Your task to perform on an android device: toggle wifi Image 0: 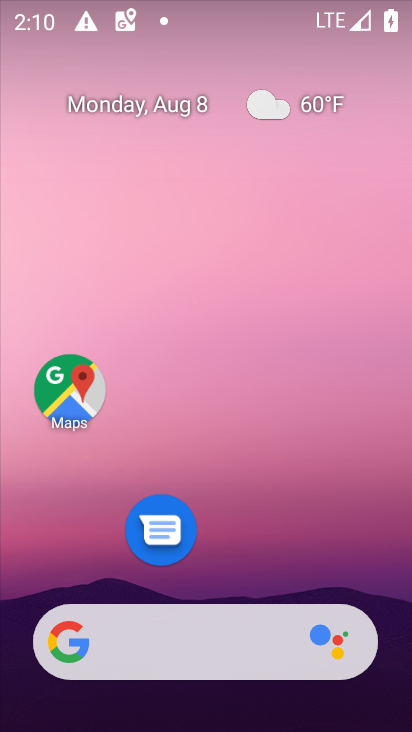
Step 0: drag from (218, 489) to (219, 84)
Your task to perform on an android device: toggle wifi Image 1: 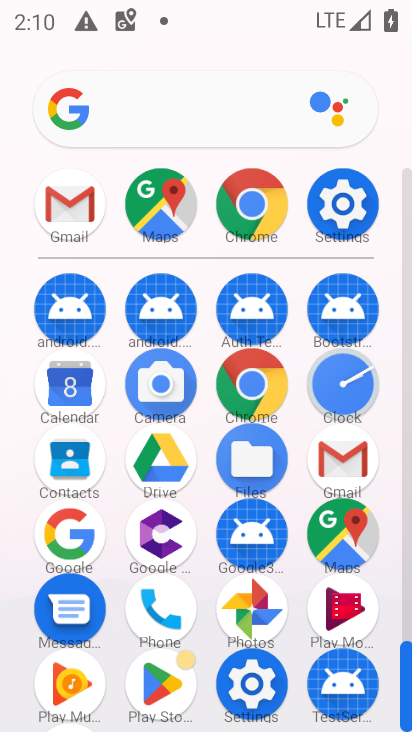
Step 1: click (349, 199)
Your task to perform on an android device: toggle wifi Image 2: 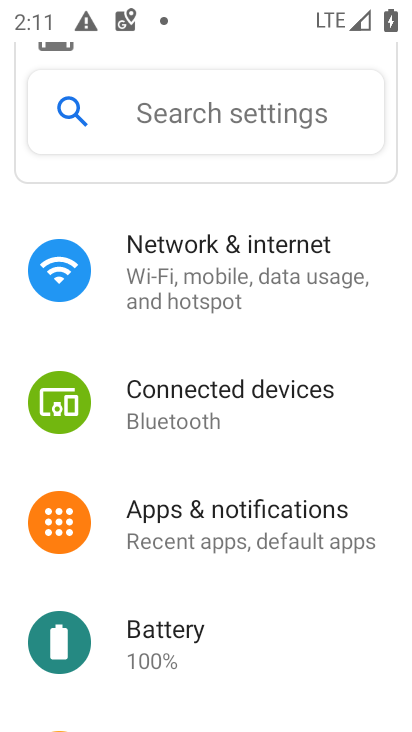
Step 2: click (205, 264)
Your task to perform on an android device: toggle wifi Image 3: 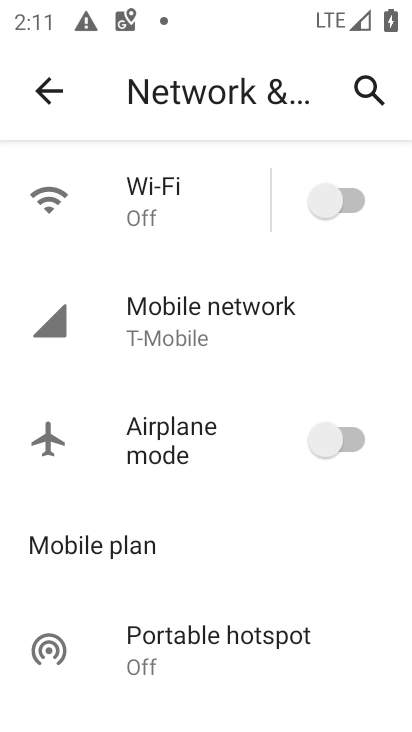
Step 3: click (354, 192)
Your task to perform on an android device: toggle wifi Image 4: 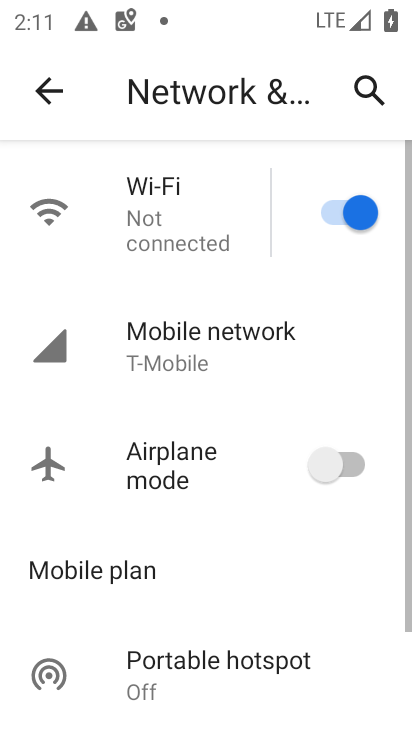
Step 4: task complete